Your task to perform on an android device: stop showing notifications on the lock screen Image 0: 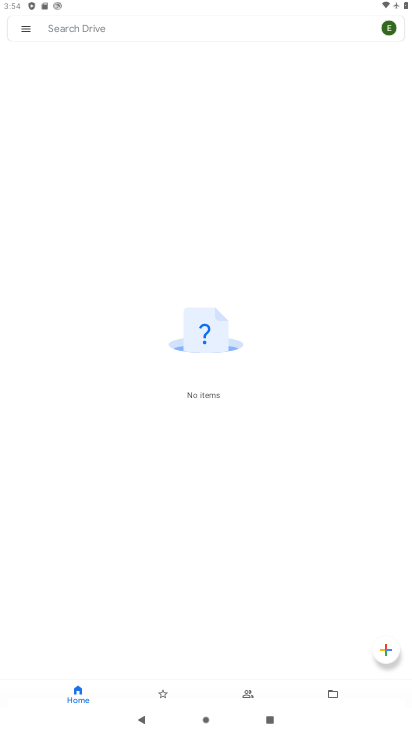
Step 0: press home button
Your task to perform on an android device: stop showing notifications on the lock screen Image 1: 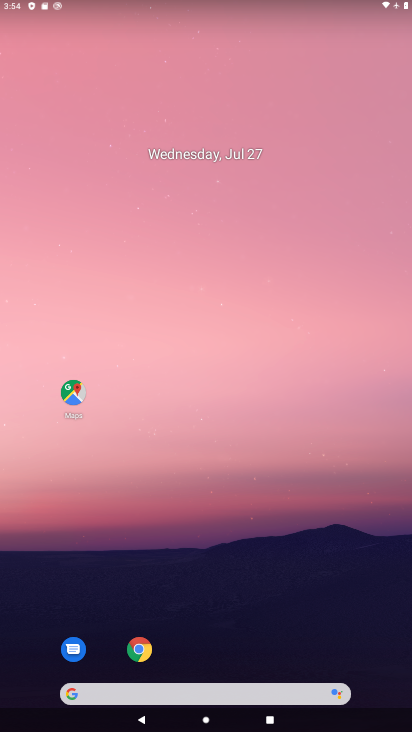
Step 1: drag from (290, 624) to (267, 95)
Your task to perform on an android device: stop showing notifications on the lock screen Image 2: 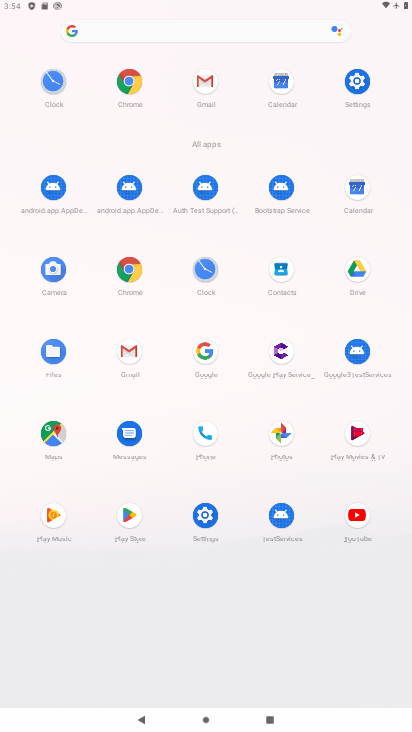
Step 2: click (354, 83)
Your task to perform on an android device: stop showing notifications on the lock screen Image 3: 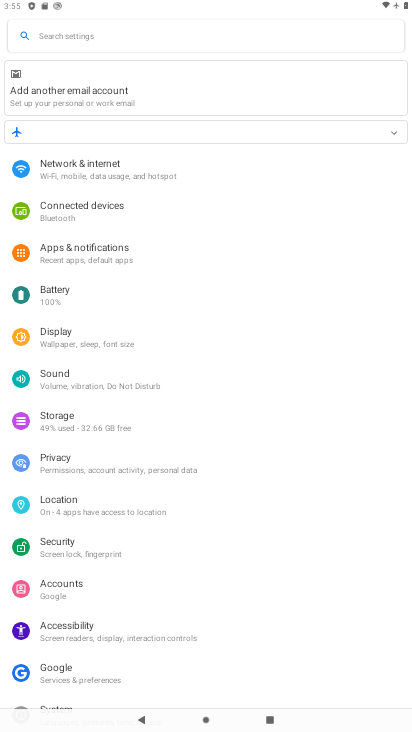
Step 3: click (175, 241)
Your task to perform on an android device: stop showing notifications on the lock screen Image 4: 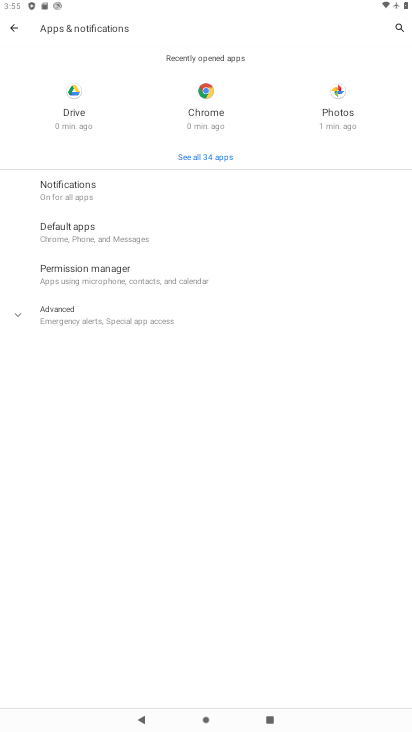
Step 4: click (162, 185)
Your task to perform on an android device: stop showing notifications on the lock screen Image 5: 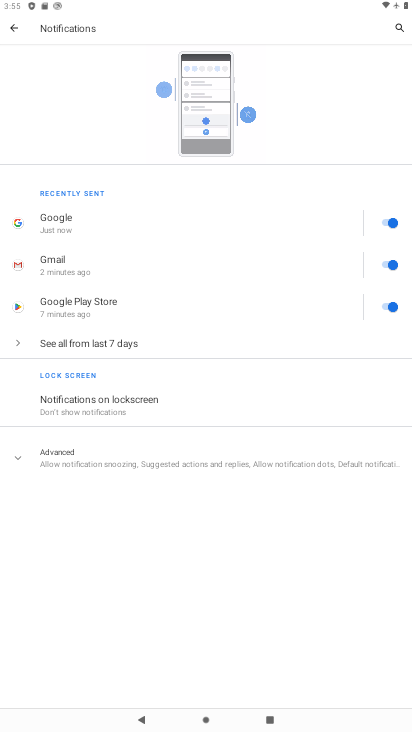
Step 5: click (197, 408)
Your task to perform on an android device: stop showing notifications on the lock screen Image 6: 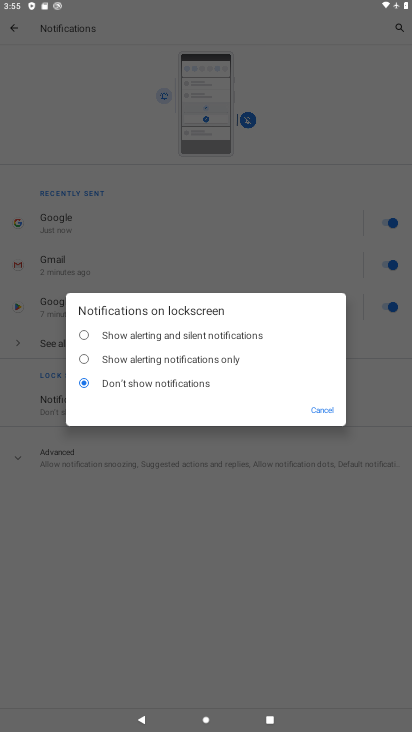
Step 6: task complete